Your task to perform on an android device: Do I have any events today? Image 0: 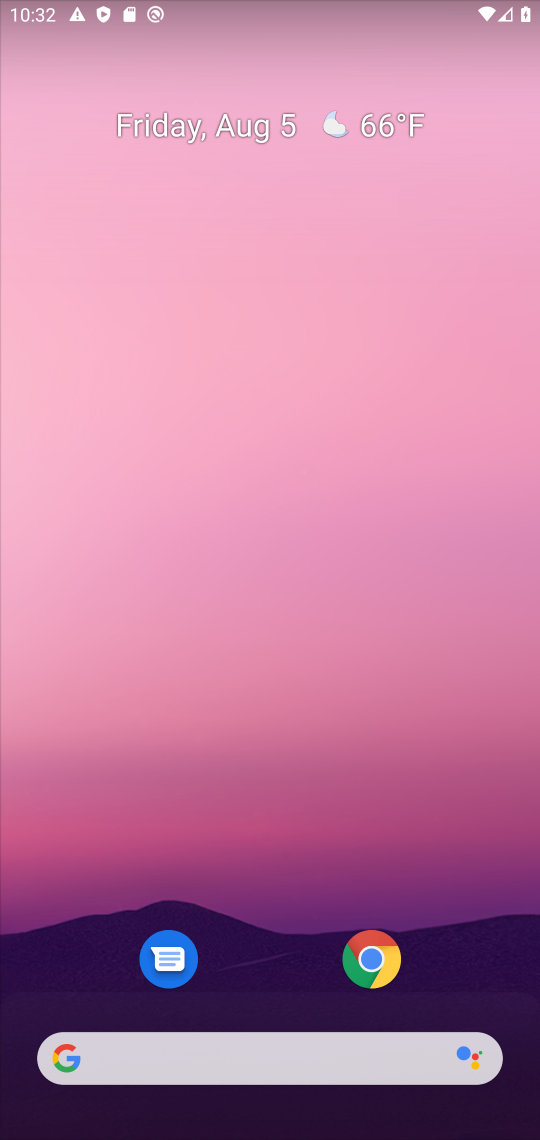
Step 0: drag from (237, 1046) to (173, 107)
Your task to perform on an android device: Do I have any events today? Image 1: 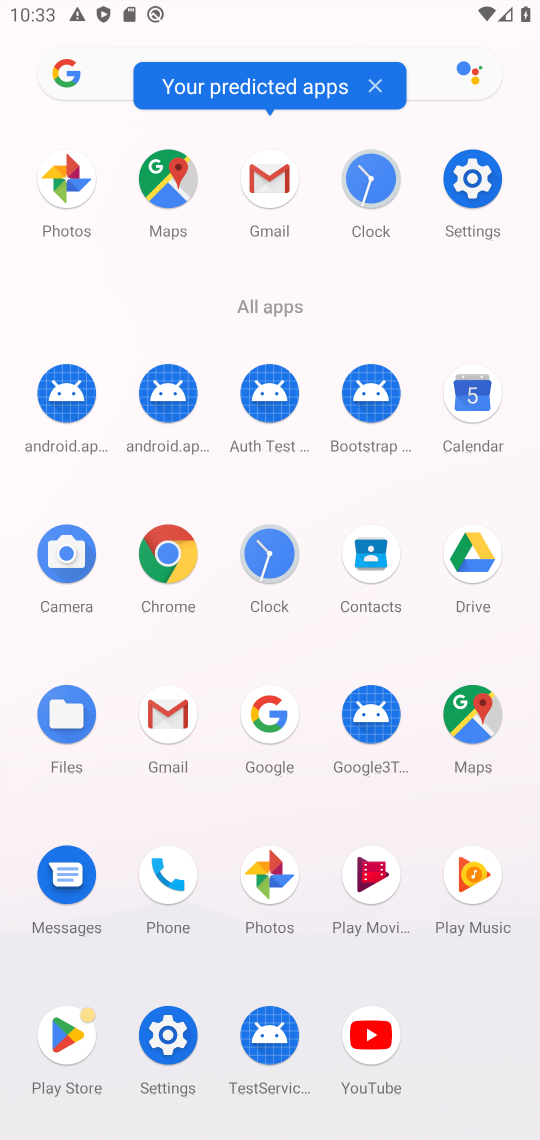
Step 1: click (461, 413)
Your task to perform on an android device: Do I have any events today? Image 2: 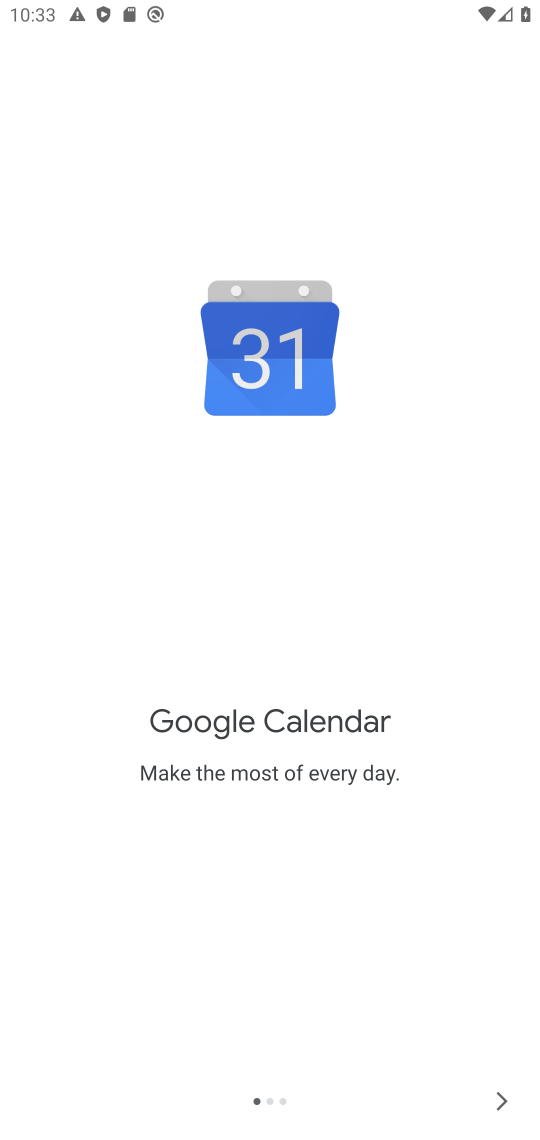
Step 2: click (501, 1098)
Your task to perform on an android device: Do I have any events today? Image 3: 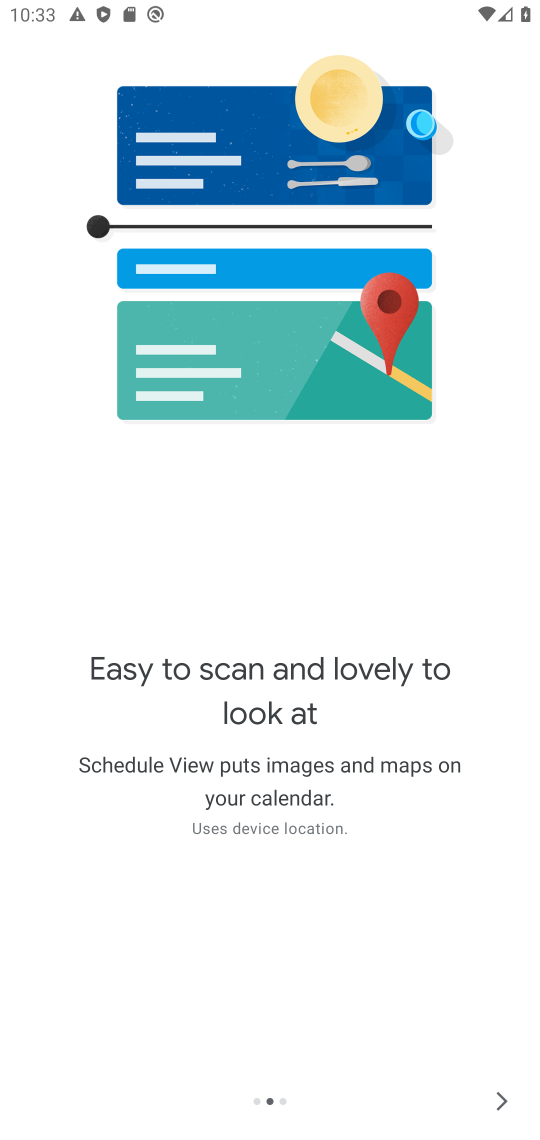
Step 3: click (501, 1098)
Your task to perform on an android device: Do I have any events today? Image 4: 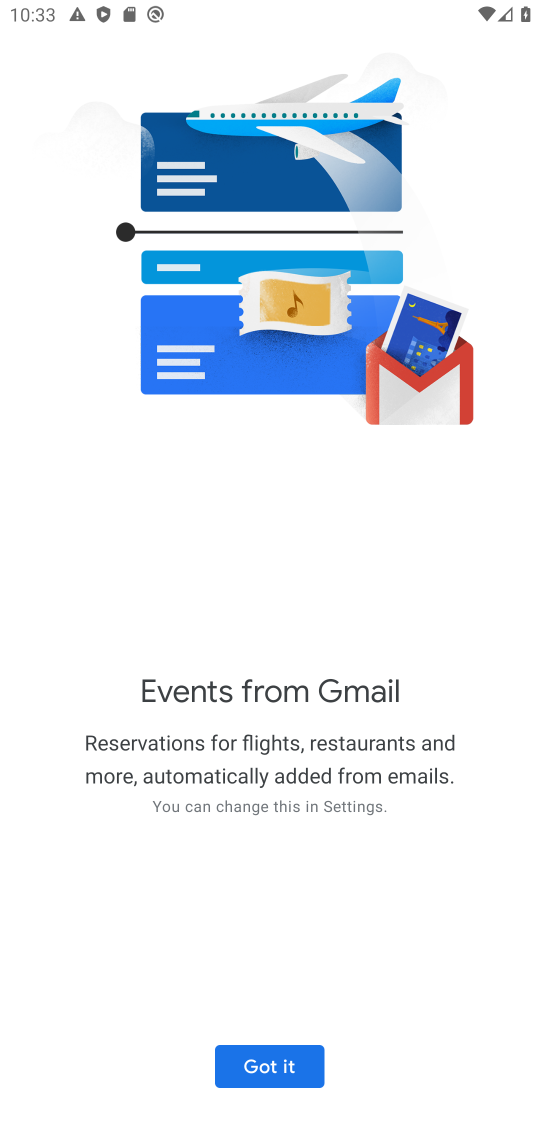
Step 4: click (256, 1059)
Your task to perform on an android device: Do I have any events today? Image 5: 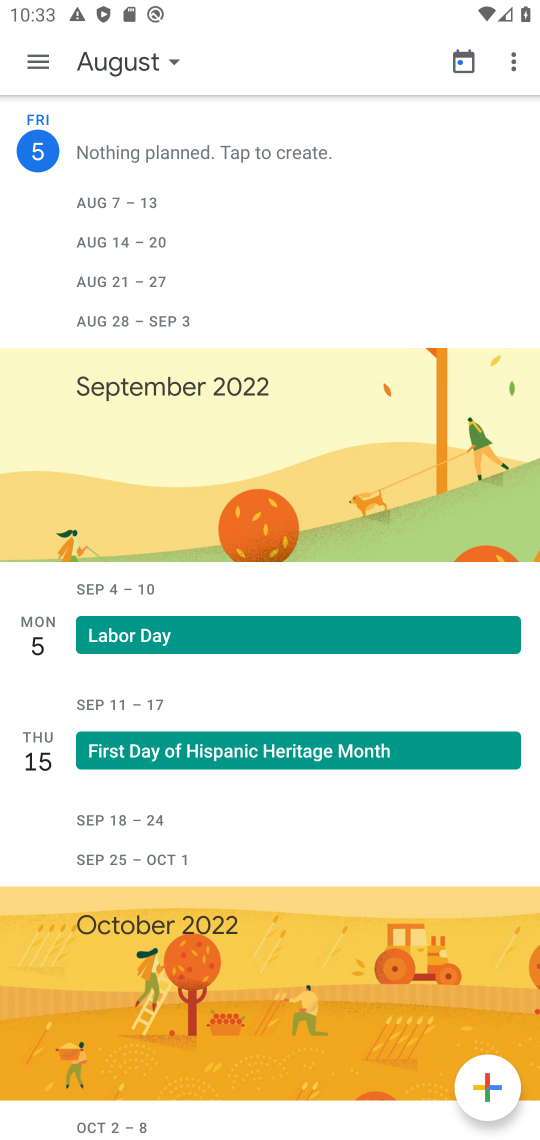
Step 5: click (36, 61)
Your task to perform on an android device: Do I have any events today? Image 6: 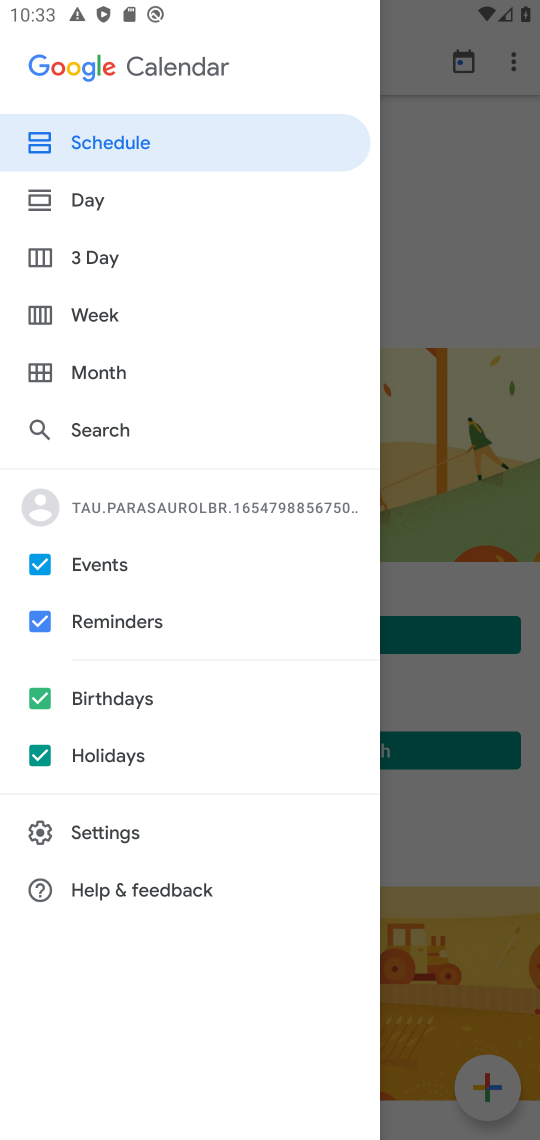
Step 6: click (114, 156)
Your task to perform on an android device: Do I have any events today? Image 7: 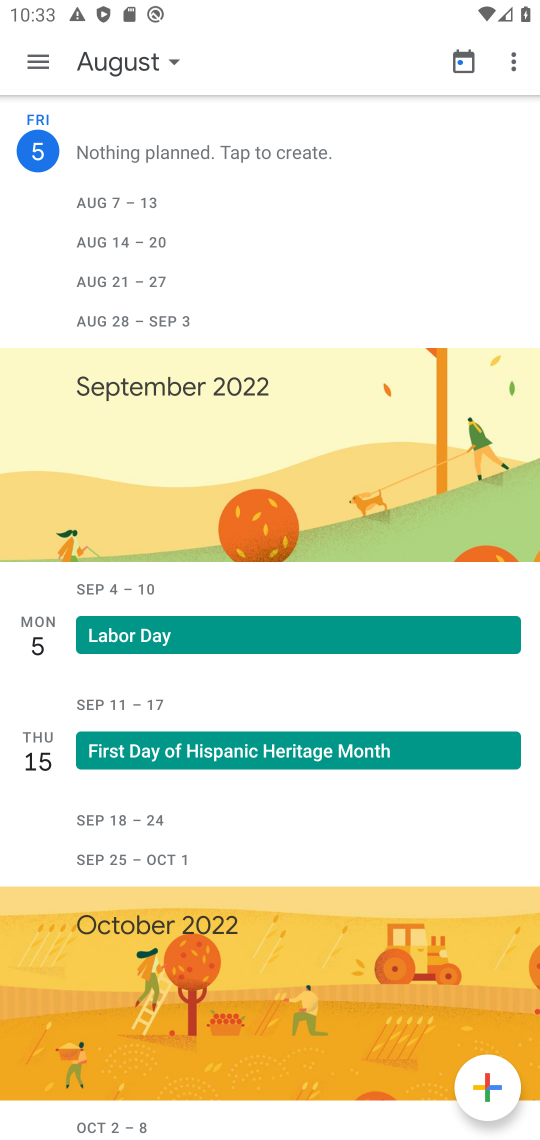
Step 7: task complete